Your task to perform on an android device: What's on my calendar tomorrow? Image 0: 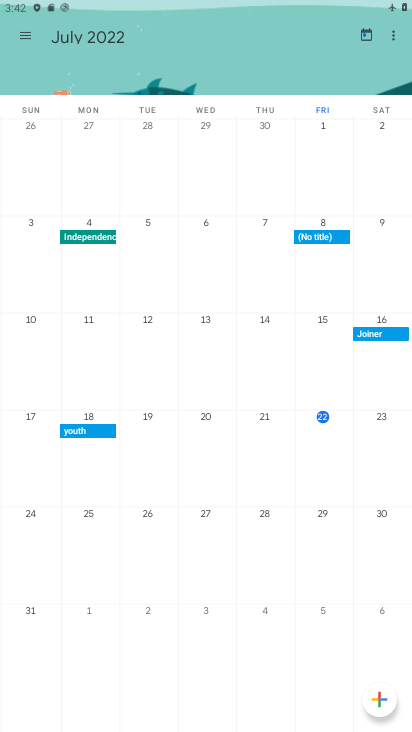
Step 0: click (312, 357)
Your task to perform on an android device: What's on my calendar tomorrow? Image 1: 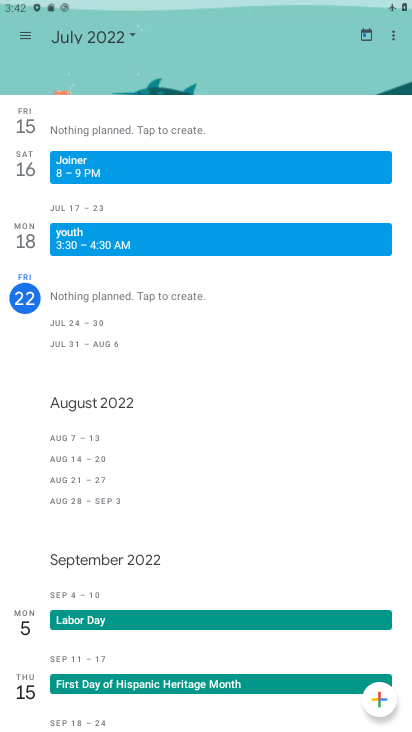
Step 1: click (84, 36)
Your task to perform on an android device: What's on my calendar tomorrow? Image 2: 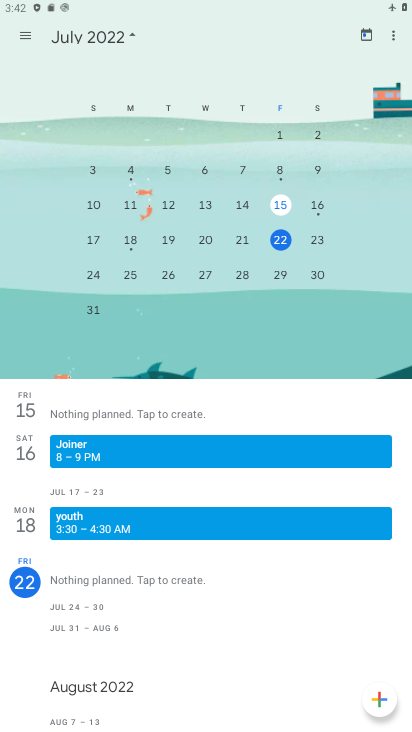
Step 2: click (321, 246)
Your task to perform on an android device: What's on my calendar tomorrow? Image 3: 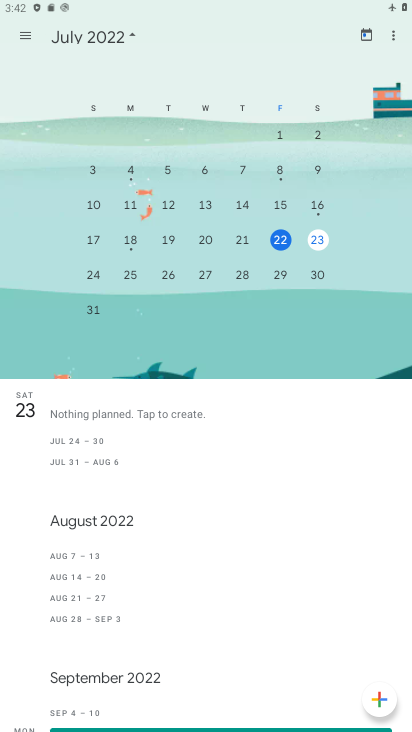
Step 3: task complete